Your task to perform on an android device: Open settings on Google Maps Image 0: 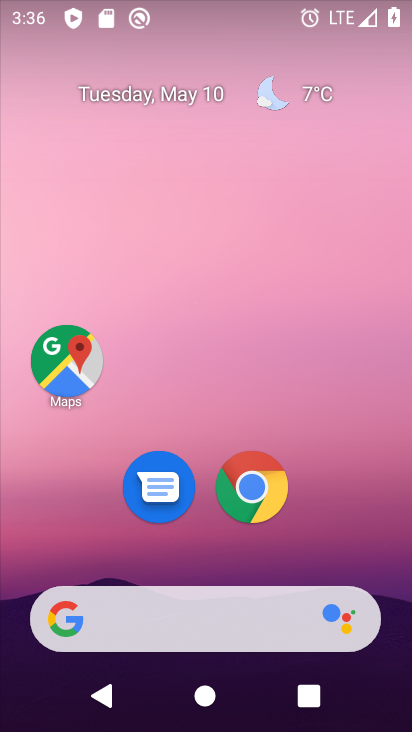
Step 0: click (58, 361)
Your task to perform on an android device: Open settings on Google Maps Image 1: 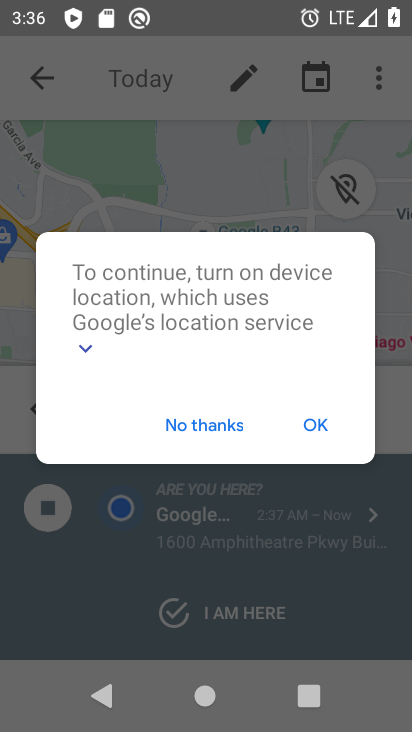
Step 1: click (211, 433)
Your task to perform on an android device: Open settings on Google Maps Image 2: 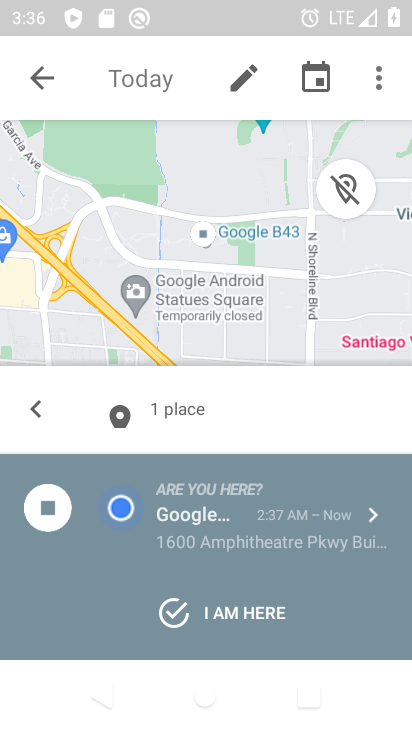
Step 2: click (53, 80)
Your task to perform on an android device: Open settings on Google Maps Image 3: 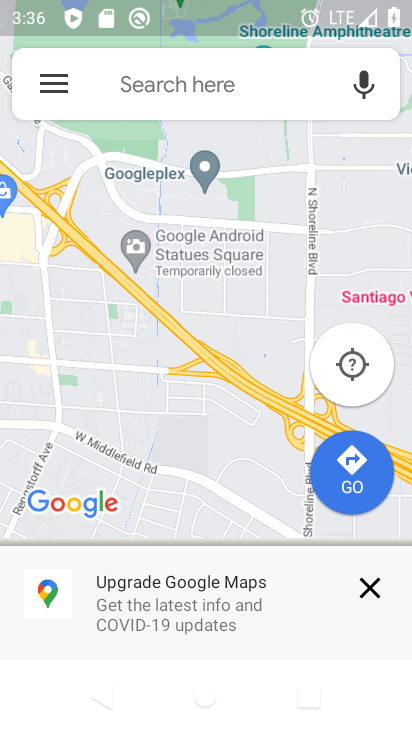
Step 3: click (53, 85)
Your task to perform on an android device: Open settings on Google Maps Image 4: 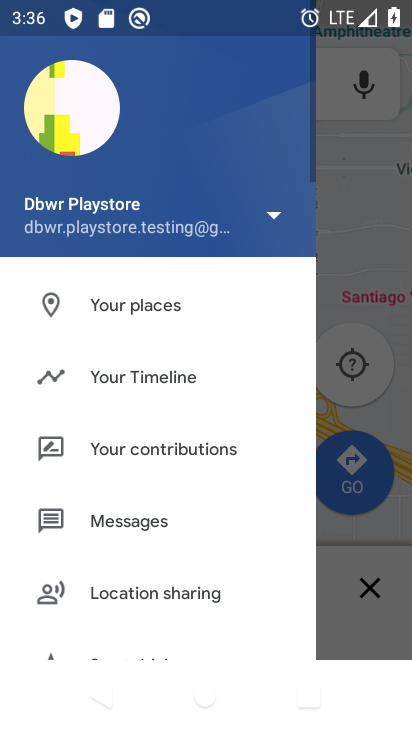
Step 4: drag from (218, 548) to (249, 114)
Your task to perform on an android device: Open settings on Google Maps Image 5: 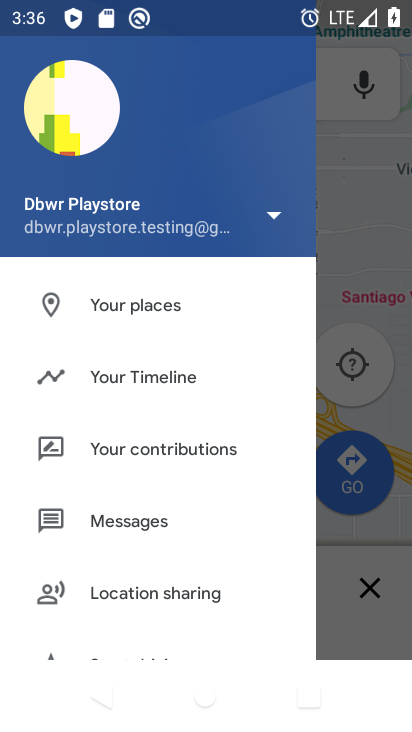
Step 5: drag from (163, 463) to (229, 202)
Your task to perform on an android device: Open settings on Google Maps Image 6: 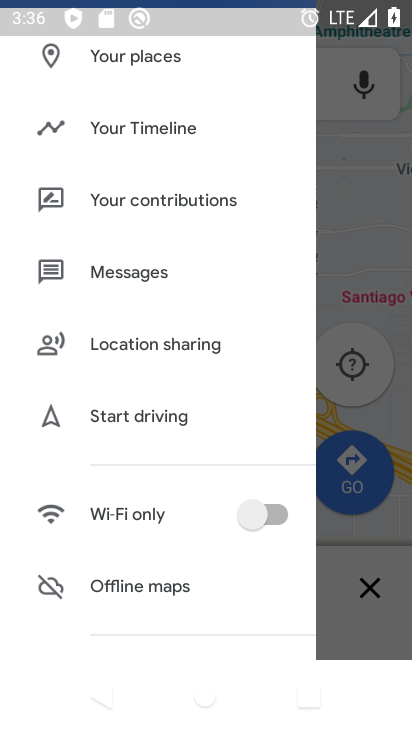
Step 6: drag from (129, 581) to (232, 201)
Your task to perform on an android device: Open settings on Google Maps Image 7: 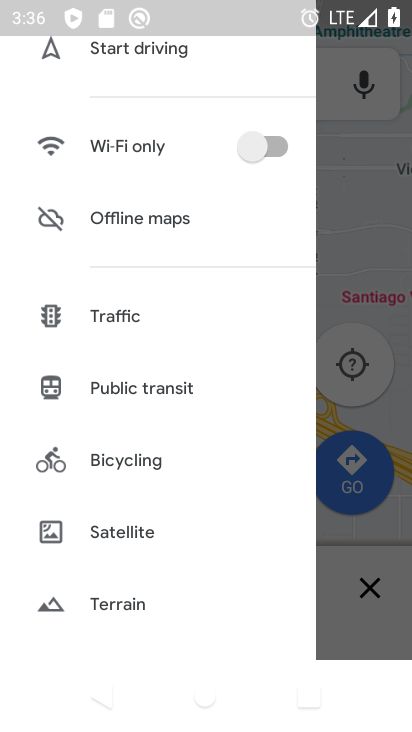
Step 7: drag from (140, 591) to (229, 268)
Your task to perform on an android device: Open settings on Google Maps Image 8: 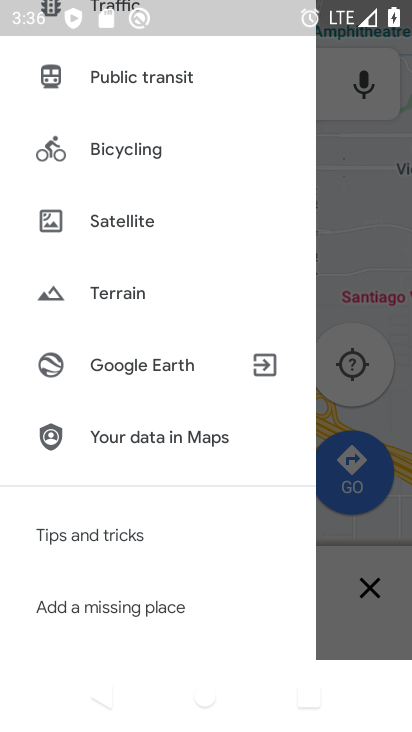
Step 8: drag from (209, 583) to (161, 83)
Your task to perform on an android device: Open settings on Google Maps Image 9: 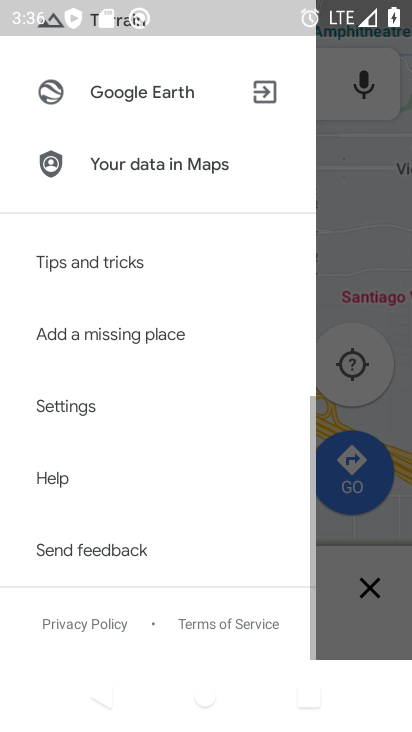
Step 9: click (55, 414)
Your task to perform on an android device: Open settings on Google Maps Image 10: 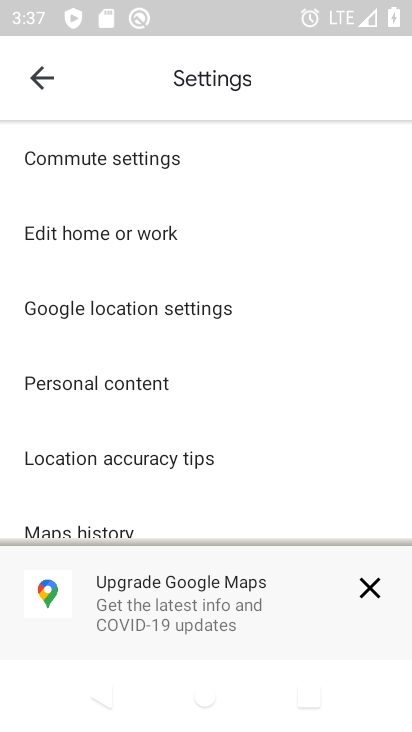
Step 10: task complete